Your task to perform on an android device: Do I have any events tomorrow? Image 0: 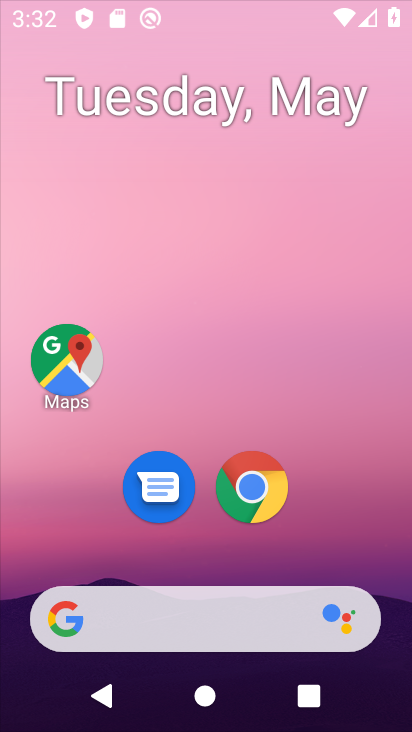
Step 0: drag from (213, 526) to (330, 61)
Your task to perform on an android device: Do I have any events tomorrow? Image 1: 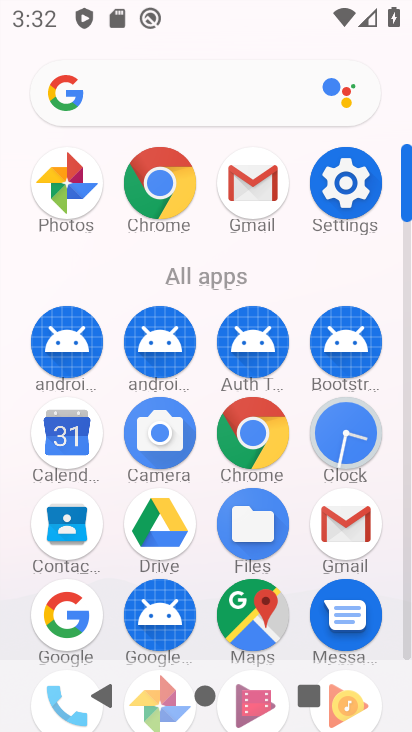
Step 1: click (78, 444)
Your task to perform on an android device: Do I have any events tomorrow? Image 2: 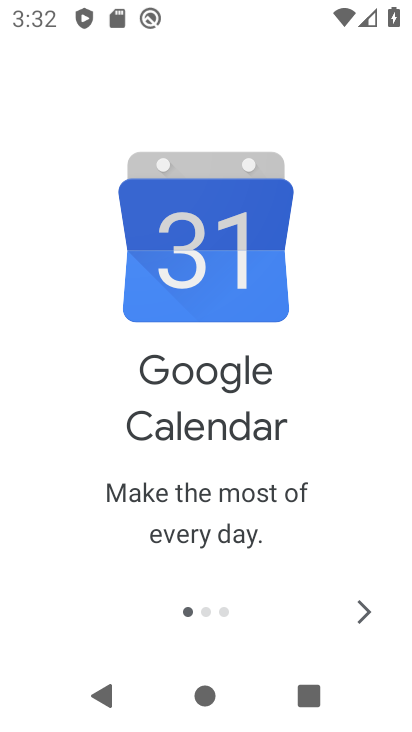
Step 2: click (365, 608)
Your task to perform on an android device: Do I have any events tomorrow? Image 3: 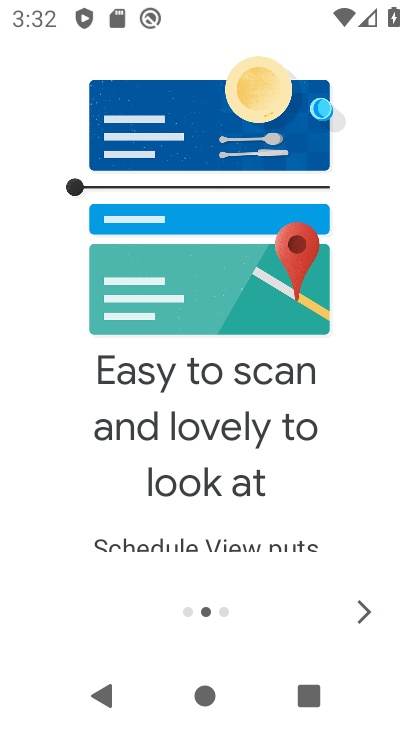
Step 3: click (369, 607)
Your task to perform on an android device: Do I have any events tomorrow? Image 4: 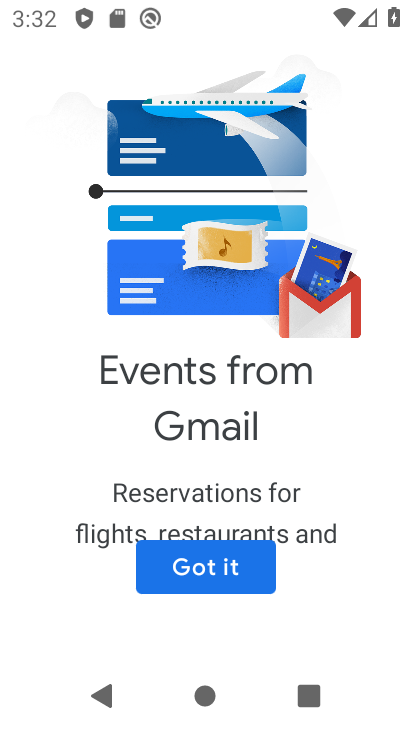
Step 4: click (175, 565)
Your task to perform on an android device: Do I have any events tomorrow? Image 5: 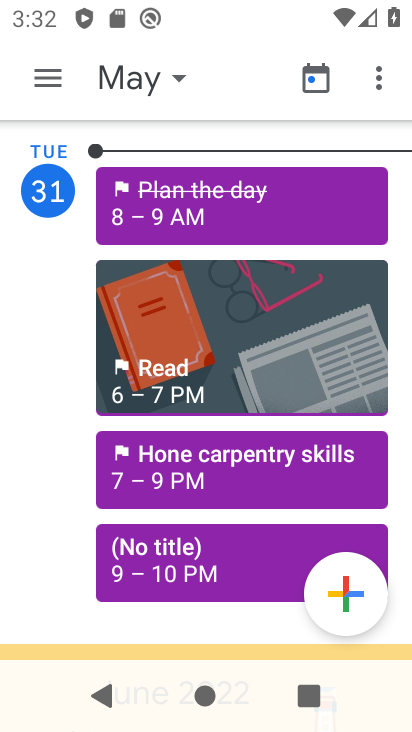
Step 5: click (49, 80)
Your task to perform on an android device: Do I have any events tomorrow? Image 6: 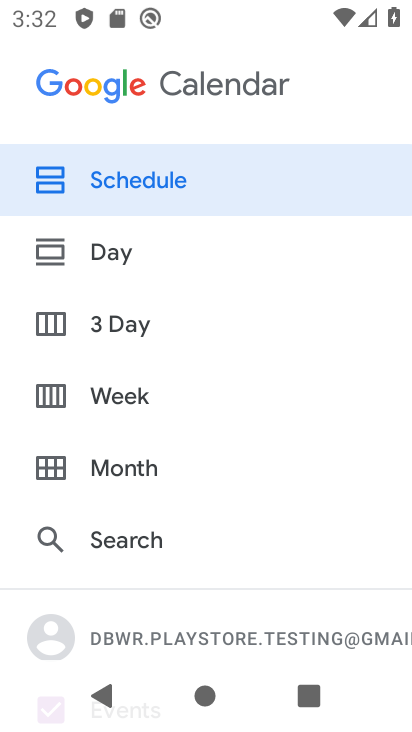
Step 6: drag from (135, 323) to (203, 87)
Your task to perform on an android device: Do I have any events tomorrow? Image 7: 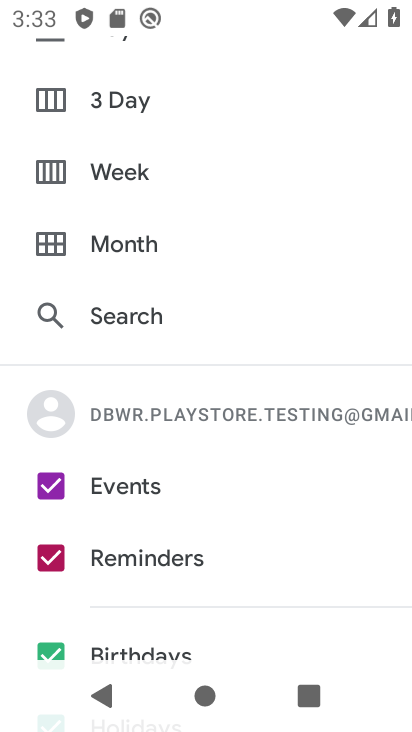
Step 7: click (142, 546)
Your task to perform on an android device: Do I have any events tomorrow? Image 8: 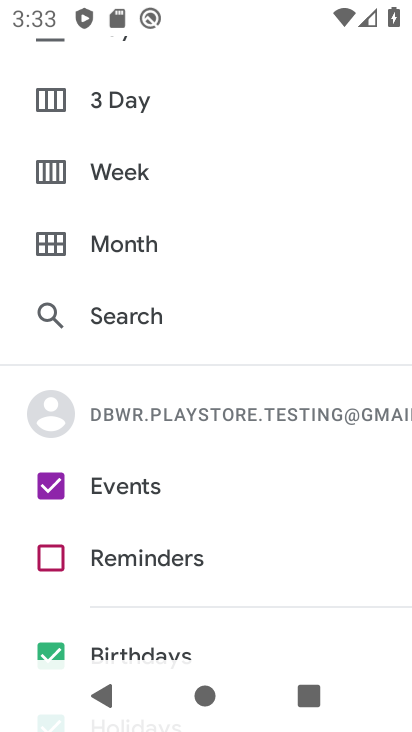
Step 8: drag from (189, 611) to (247, 320)
Your task to perform on an android device: Do I have any events tomorrow? Image 9: 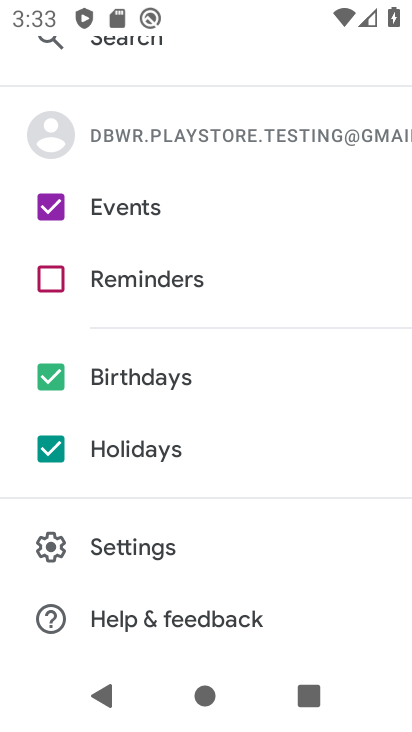
Step 9: click (174, 376)
Your task to perform on an android device: Do I have any events tomorrow? Image 10: 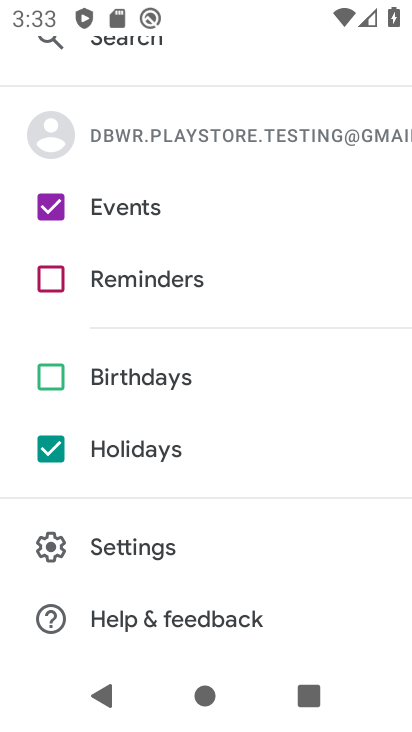
Step 10: click (133, 459)
Your task to perform on an android device: Do I have any events tomorrow? Image 11: 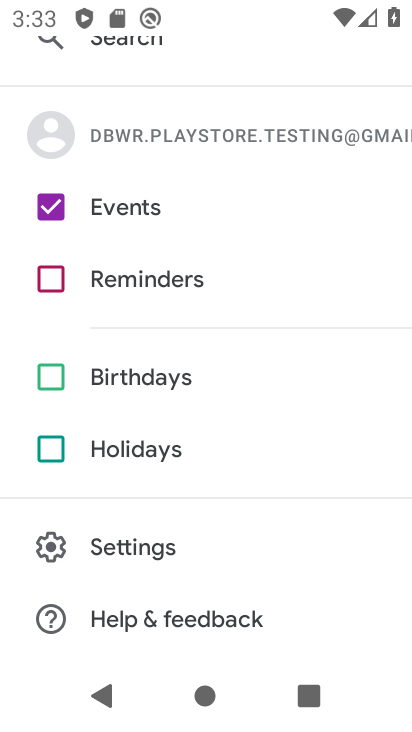
Step 11: drag from (291, 317) to (194, 731)
Your task to perform on an android device: Do I have any events tomorrow? Image 12: 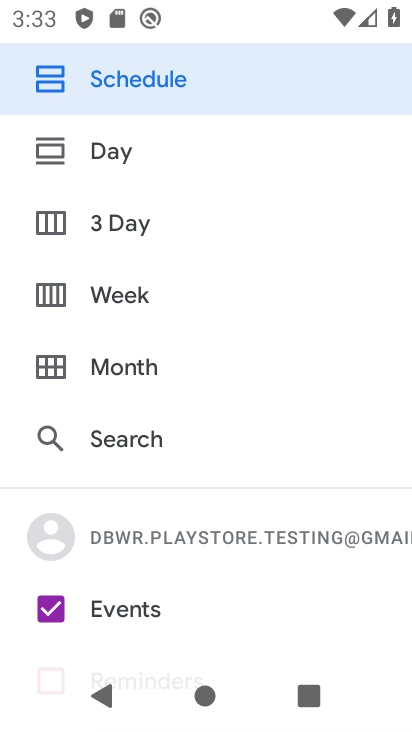
Step 12: click (127, 213)
Your task to perform on an android device: Do I have any events tomorrow? Image 13: 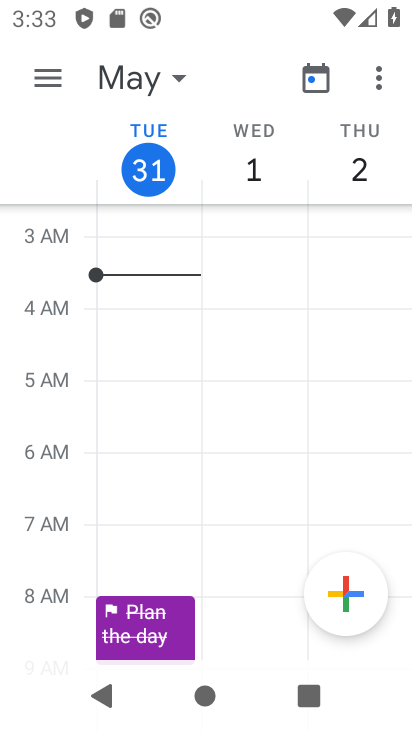
Step 13: task complete